Your task to perform on an android device: Go to location settings Image 0: 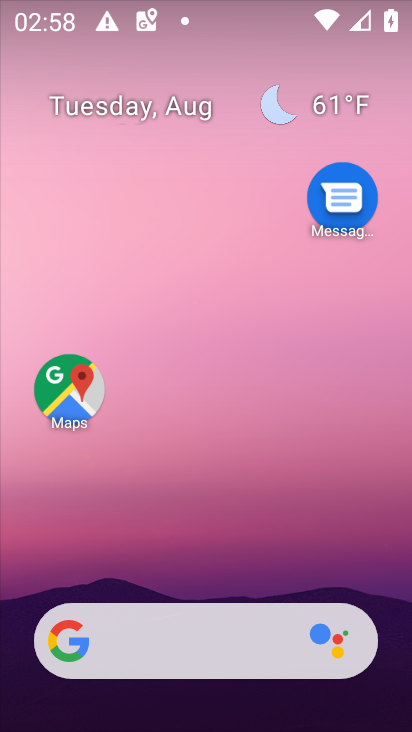
Step 0: drag from (316, 573) to (298, 7)
Your task to perform on an android device: Go to location settings Image 1: 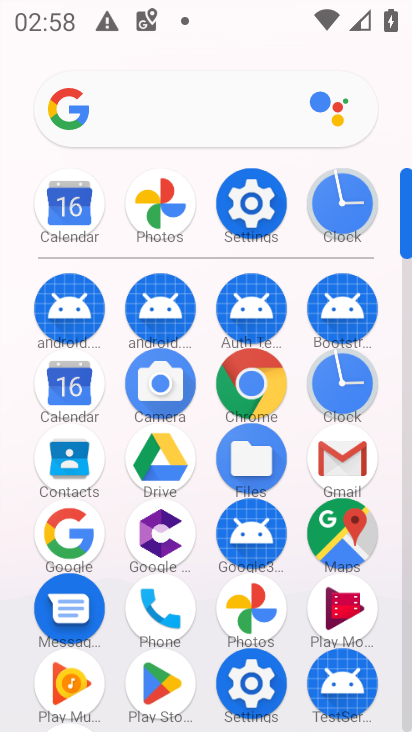
Step 1: click (268, 217)
Your task to perform on an android device: Go to location settings Image 2: 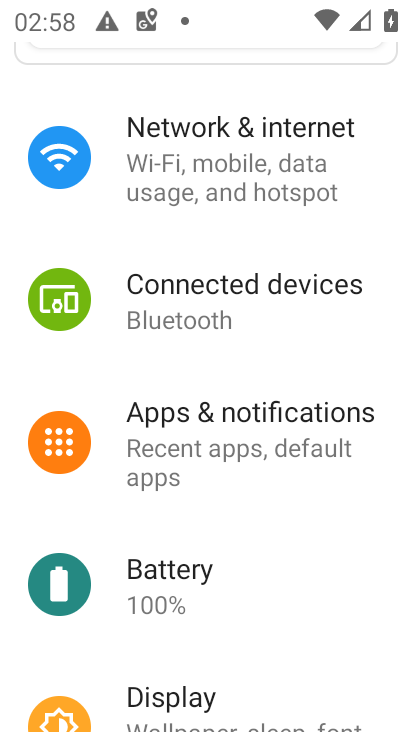
Step 2: drag from (270, 650) to (256, 283)
Your task to perform on an android device: Go to location settings Image 3: 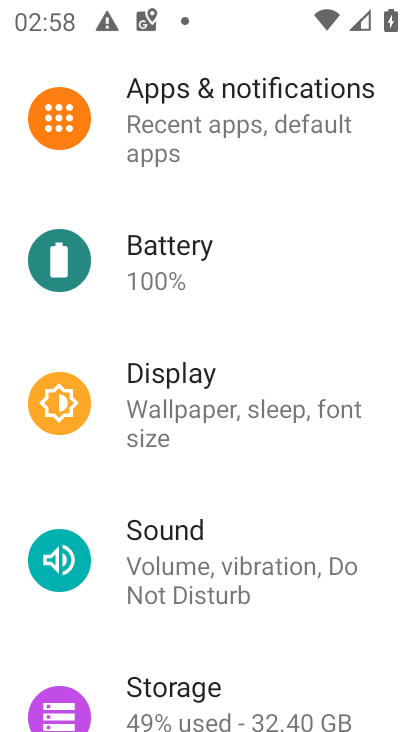
Step 3: drag from (281, 692) to (248, 265)
Your task to perform on an android device: Go to location settings Image 4: 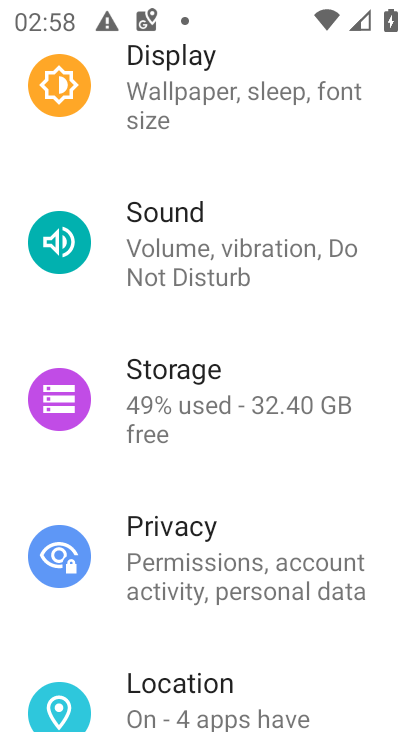
Step 4: click (264, 696)
Your task to perform on an android device: Go to location settings Image 5: 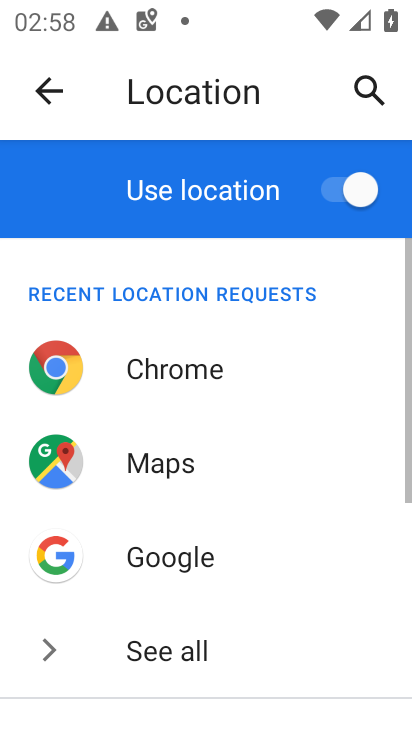
Step 5: task complete